Your task to perform on an android device: When is my next meeting? Image 0: 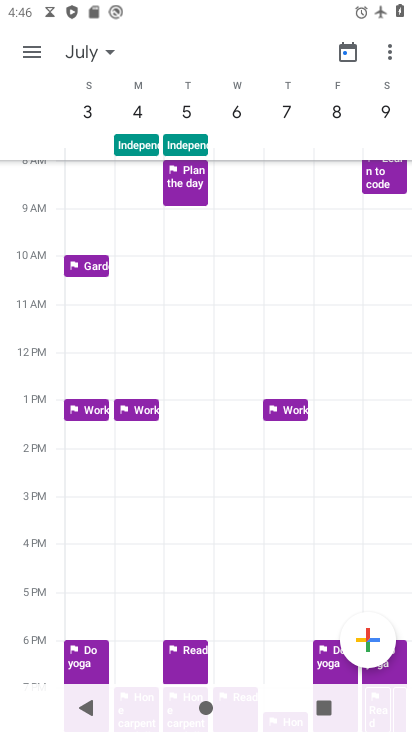
Step 0: press home button
Your task to perform on an android device: When is my next meeting? Image 1: 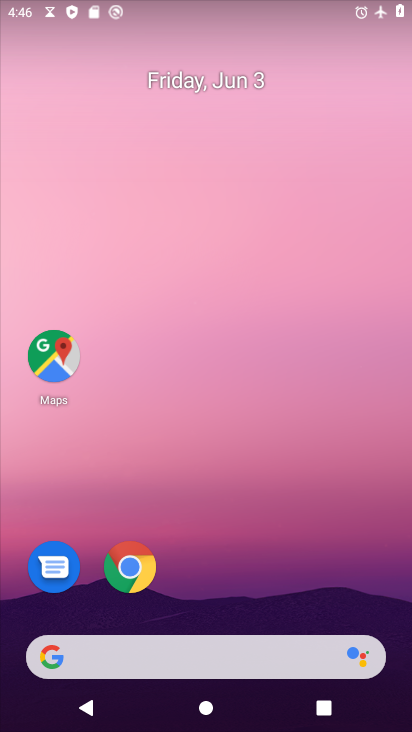
Step 1: drag from (269, 580) to (230, 107)
Your task to perform on an android device: When is my next meeting? Image 2: 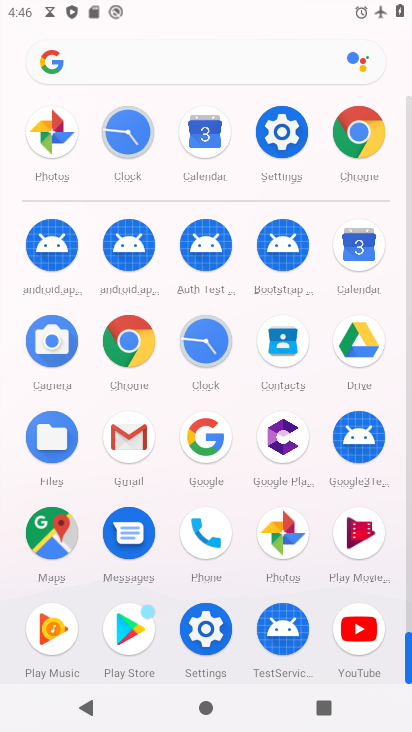
Step 2: click (358, 247)
Your task to perform on an android device: When is my next meeting? Image 3: 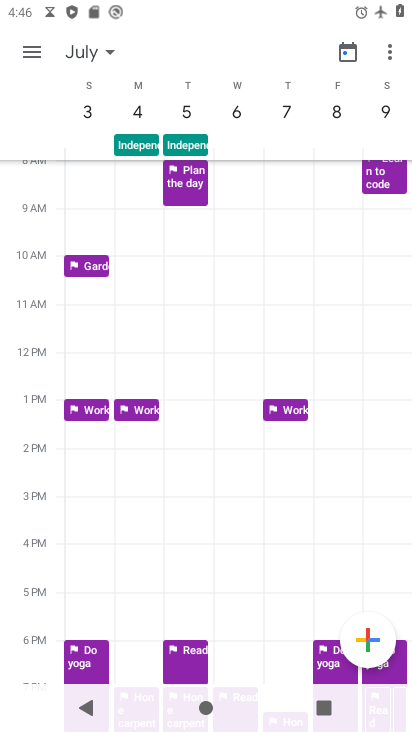
Step 3: click (349, 50)
Your task to perform on an android device: When is my next meeting? Image 4: 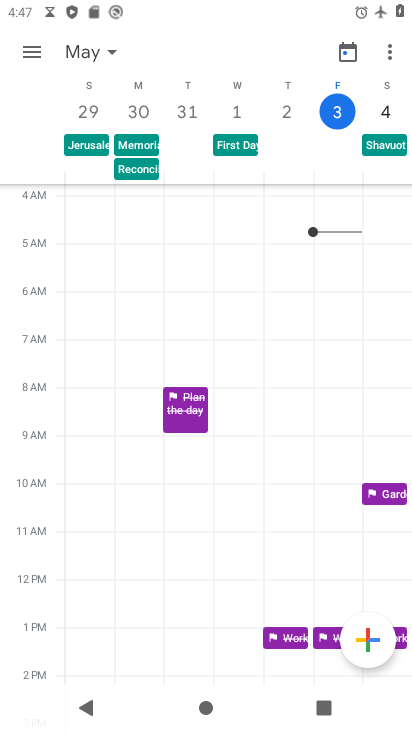
Step 4: click (111, 48)
Your task to perform on an android device: When is my next meeting? Image 5: 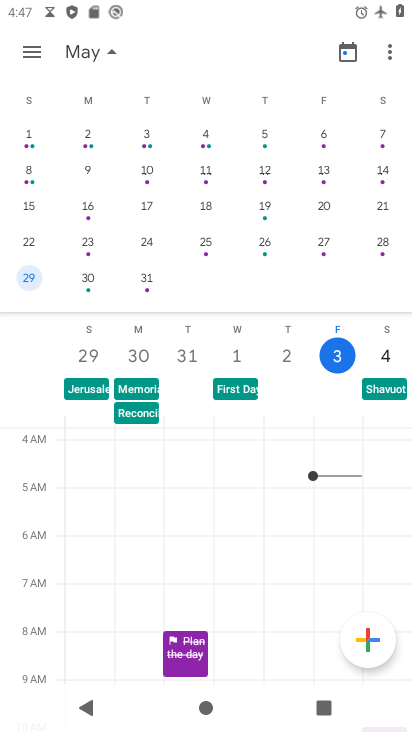
Step 5: click (349, 49)
Your task to perform on an android device: When is my next meeting? Image 6: 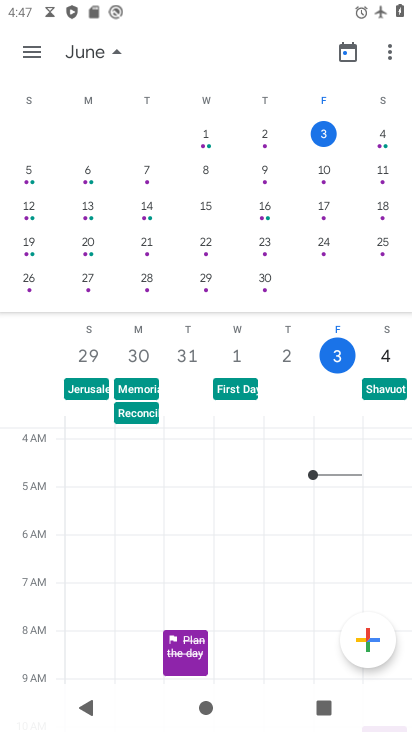
Step 6: click (382, 134)
Your task to perform on an android device: When is my next meeting? Image 7: 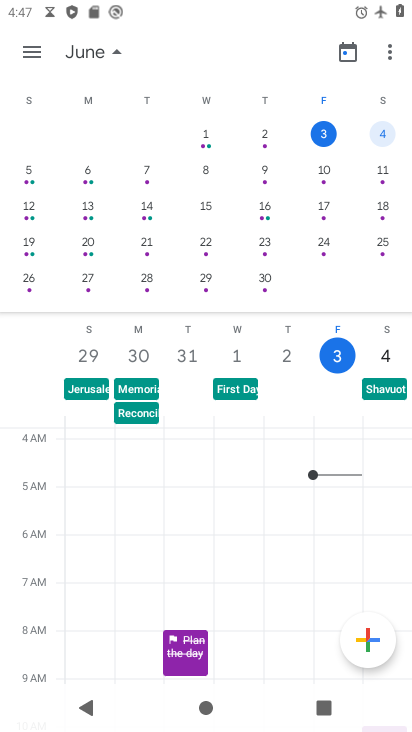
Step 7: click (27, 49)
Your task to perform on an android device: When is my next meeting? Image 8: 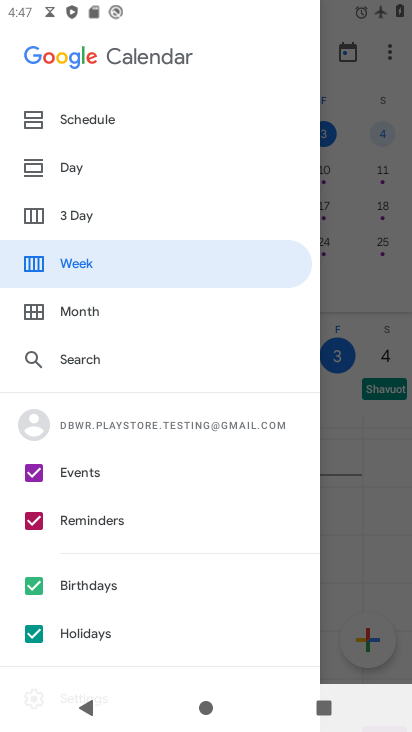
Step 8: click (96, 117)
Your task to perform on an android device: When is my next meeting? Image 9: 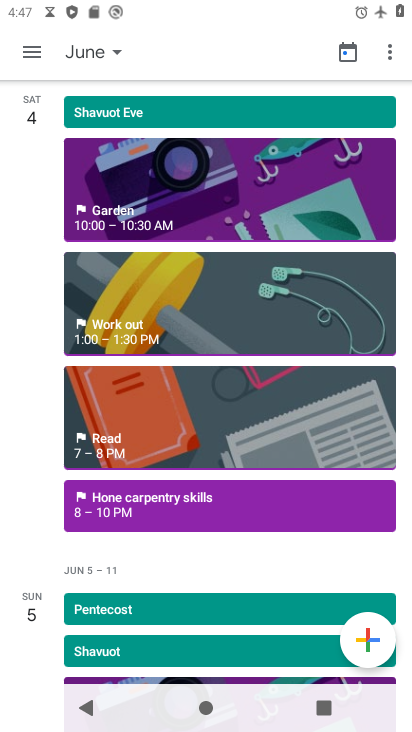
Step 9: task complete